Your task to perform on an android device: open sync settings in chrome Image 0: 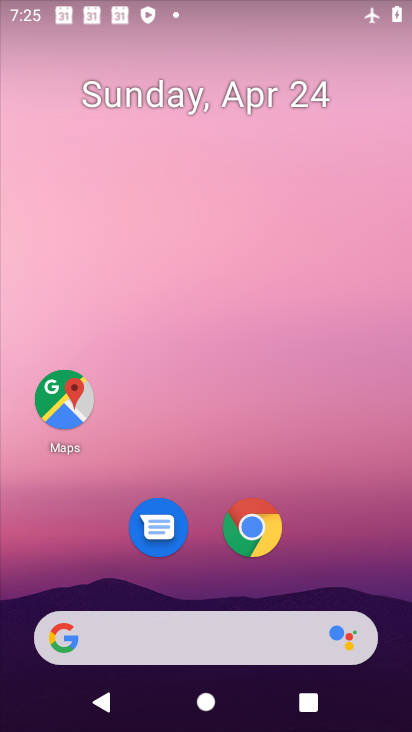
Step 0: drag from (372, 559) to (284, 97)
Your task to perform on an android device: open sync settings in chrome Image 1: 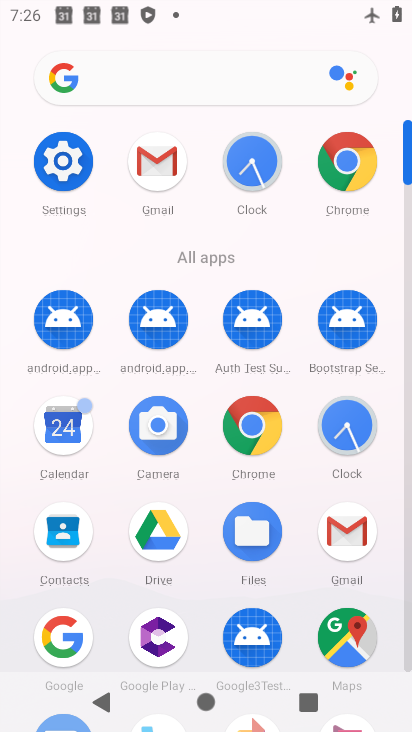
Step 1: click (331, 169)
Your task to perform on an android device: open sync settings in chrome Image 2: 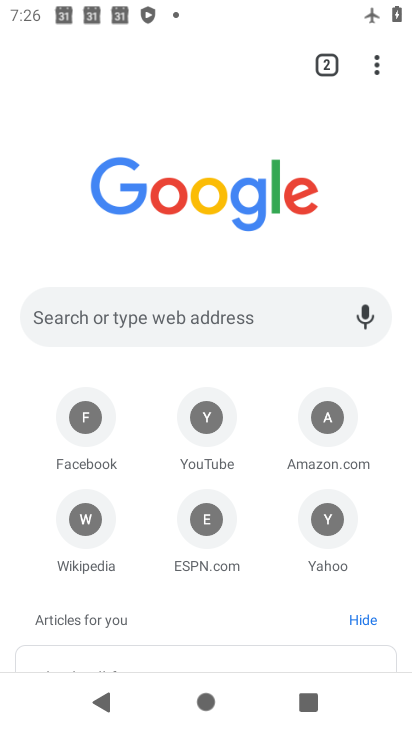
Step 2: click (378, 63)
Your task to perform on an android device: open sync settings in chrome Image 3: 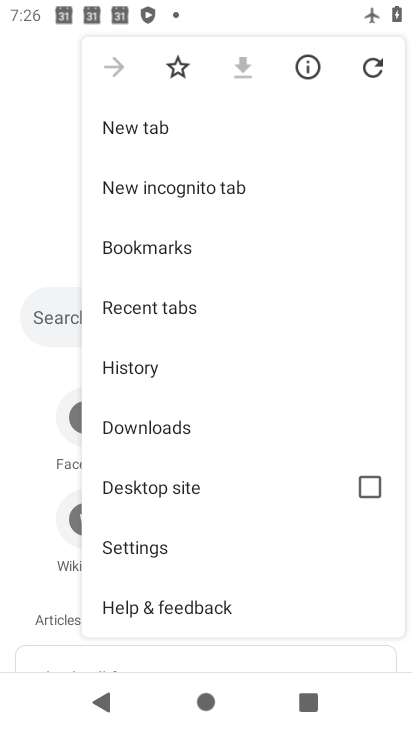
Step 3: click (162, 553)
Your task to perform on an android device: open sync settings in chrome Image 4: 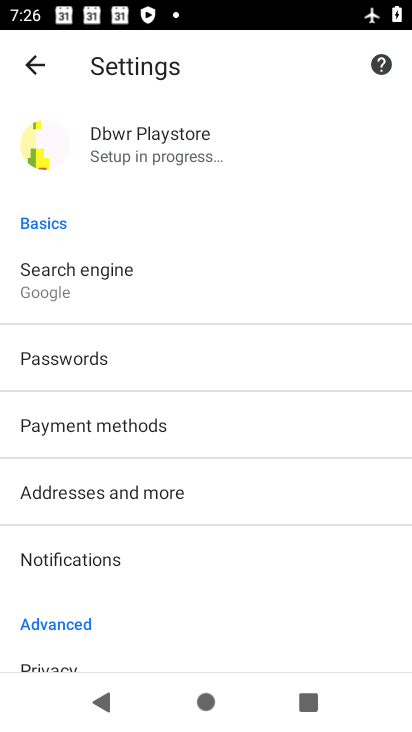
Step 4: drag from (145, 565) to (165, 167)
Your task to perform on an android device: open sync settings in chrome Image 5: 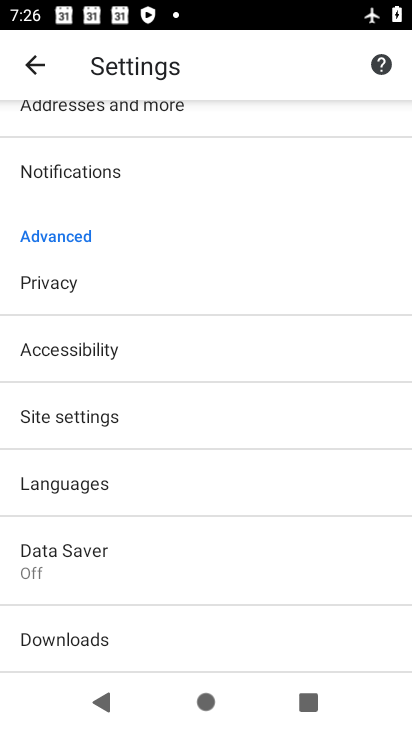
Step 5: click (142, 424)
Your task to perform on an android device: open sync settings in chrome Image 6: 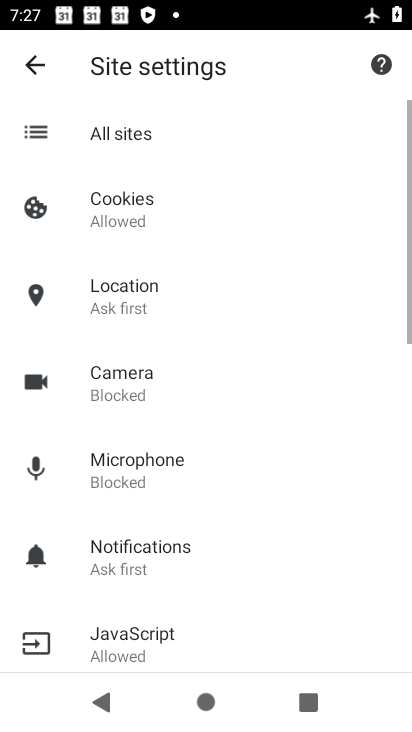
Step 6: drag from (110, 626) to (226, 183)
Your task to perform on an android device: open sync settings in chrome Image 7: 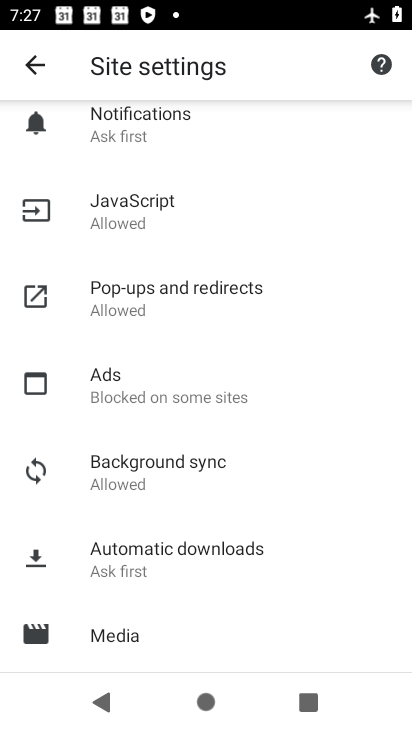
Step 7: drag from (167, 615) to (271, 164)
Your task to perform on an android device: open sync settings in chrome Image 8: 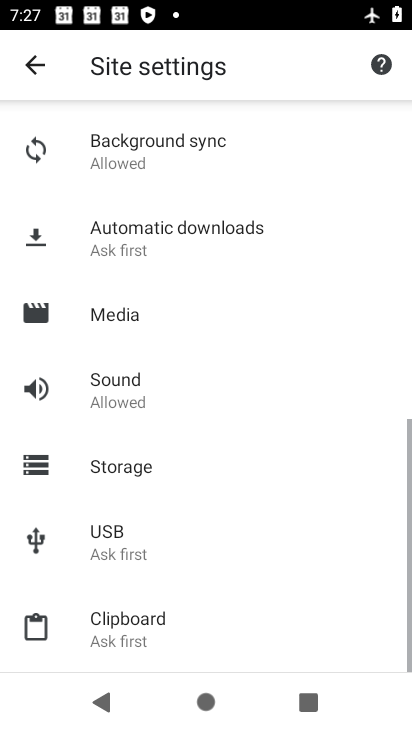
Step 8: click (170, 152)
Your task to perform on an android device: open sync settings in chrome Image 9: 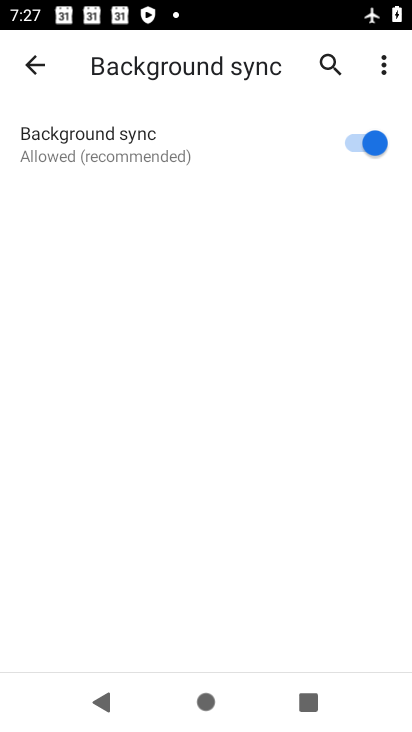
Step 9: task complete